Your task to perform on an android device: find which apps use the phone's location Image 0: 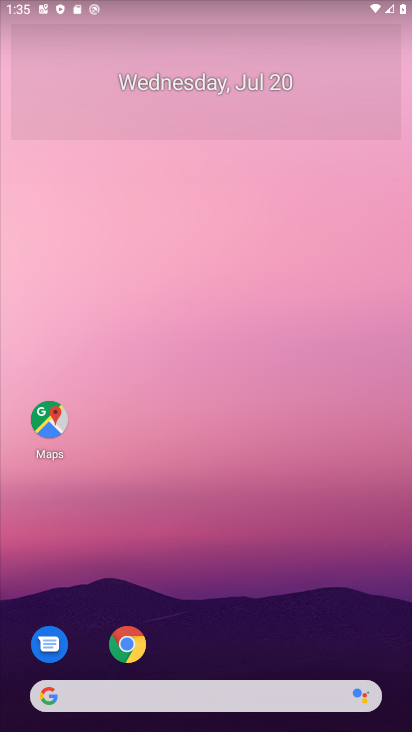
Step 0: press home button
Your task to perform on an android device: find which apps use the phone's location Image 1: 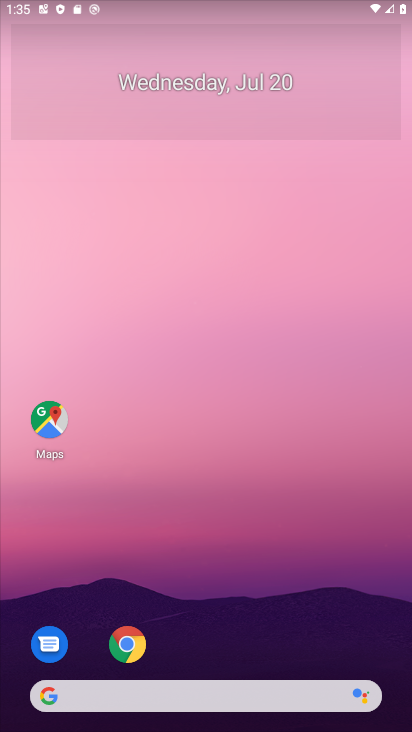
Step 1: drag from (230, 623) to (261, 79)
Your task to perform on an android device: find which apps use the phone's location Image 2: 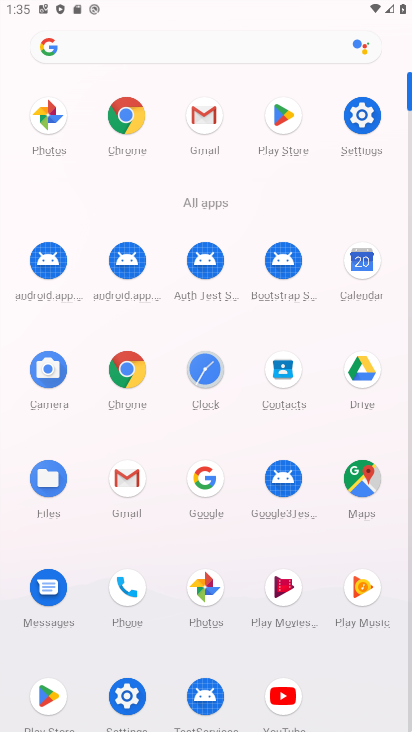
Step 2: click (368, 110)
Your task to perform on an android device: find which apps use the phone's location Image 3: 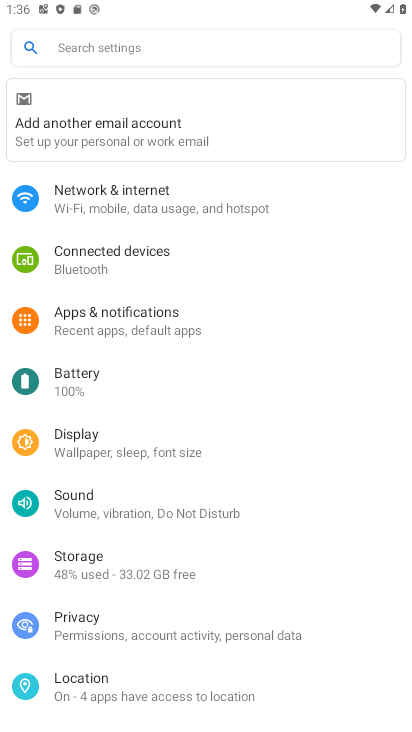
Step 3: click (81, 692)
Your task to perform on an android device: find which apps use the phone's location Image 4: 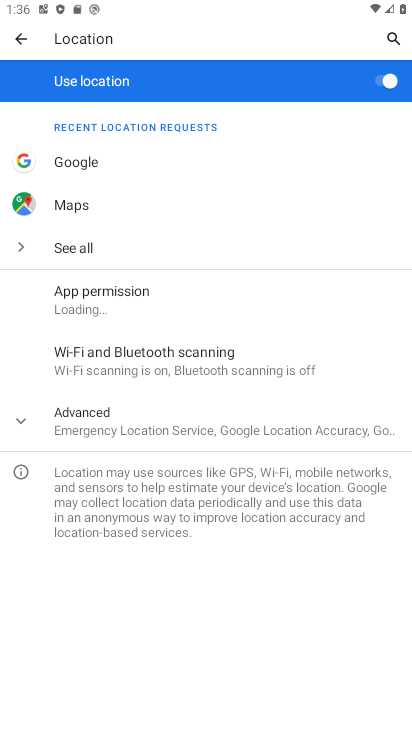
Step 4: click (97, 290)
Your task to perform on an android device: find which apps use the phone's location Image 5: 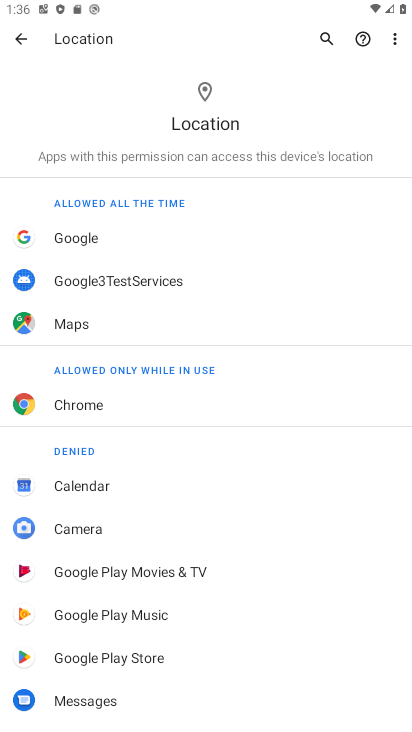
Step 5: task complete